Your task to perform on an android device: Go to Google maps Image 0: 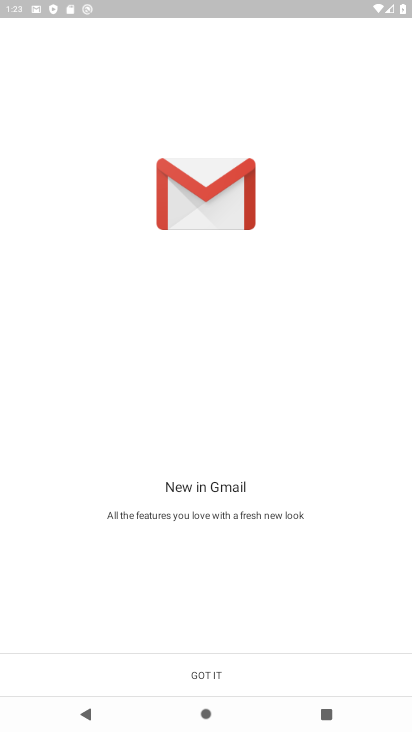
Step 0: press home button
Your task to perform on an android device: Go to Google maps Image 1: 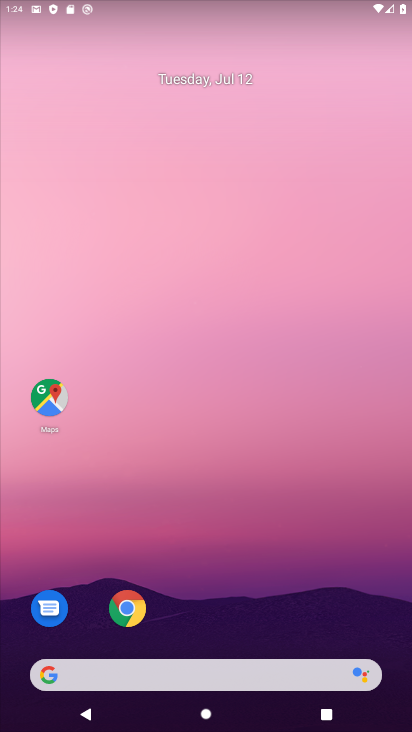
Step 1: drag from (263, 604) to (206, 193)
Your task to perform on an android device: Go to Google maps Image 2: 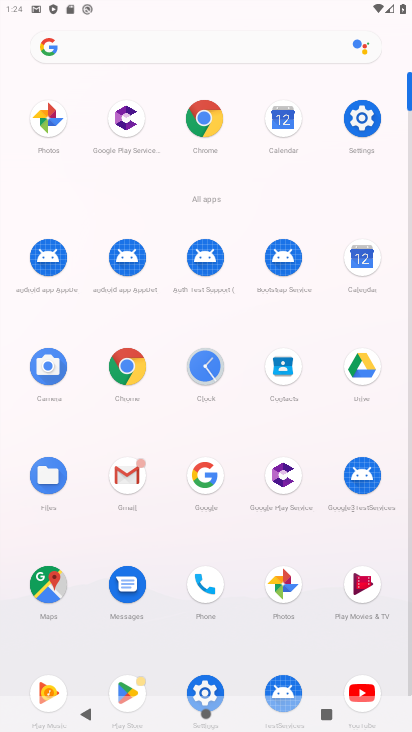
Step 2: click (40, 583)
Your task to perform on an android device: Go to Google maps Image 3: 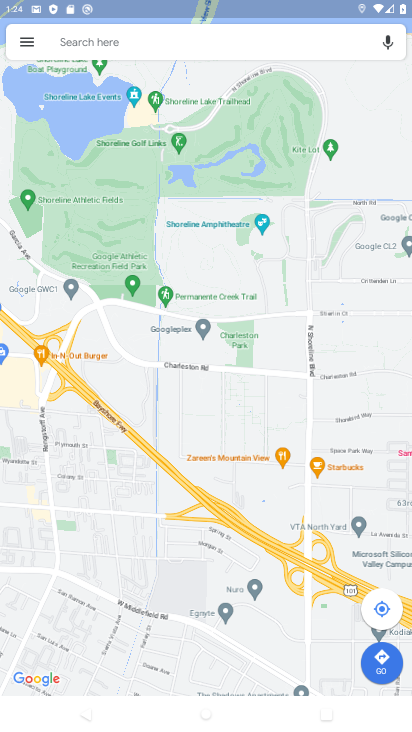
Step 3: task complete